Your task to perform on an android device: Go to Google maps Image 0: 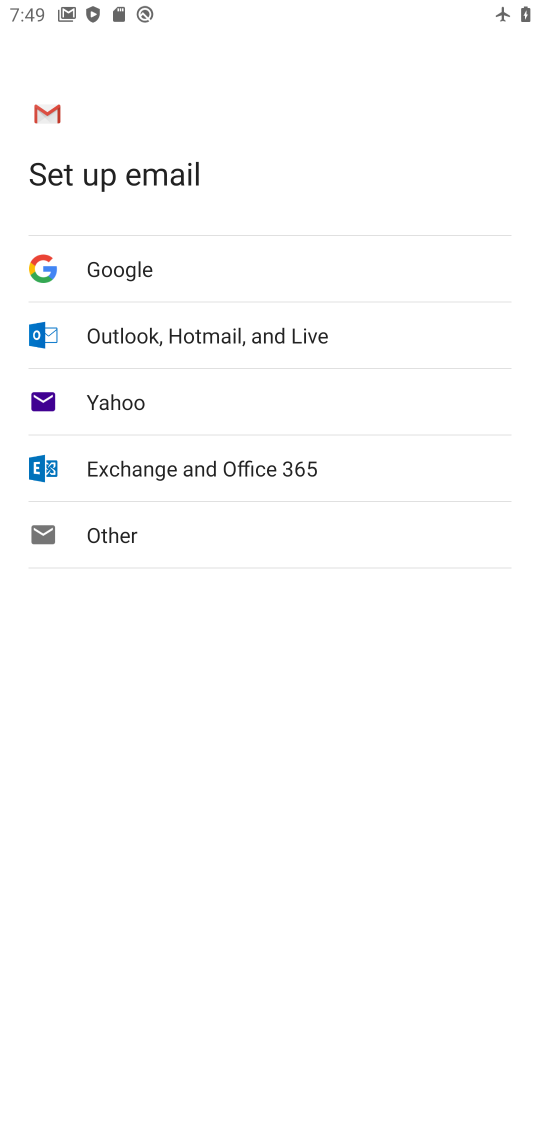
Step 0: press home button
Your task to perform on an android device: Go to Google maps Image 1: 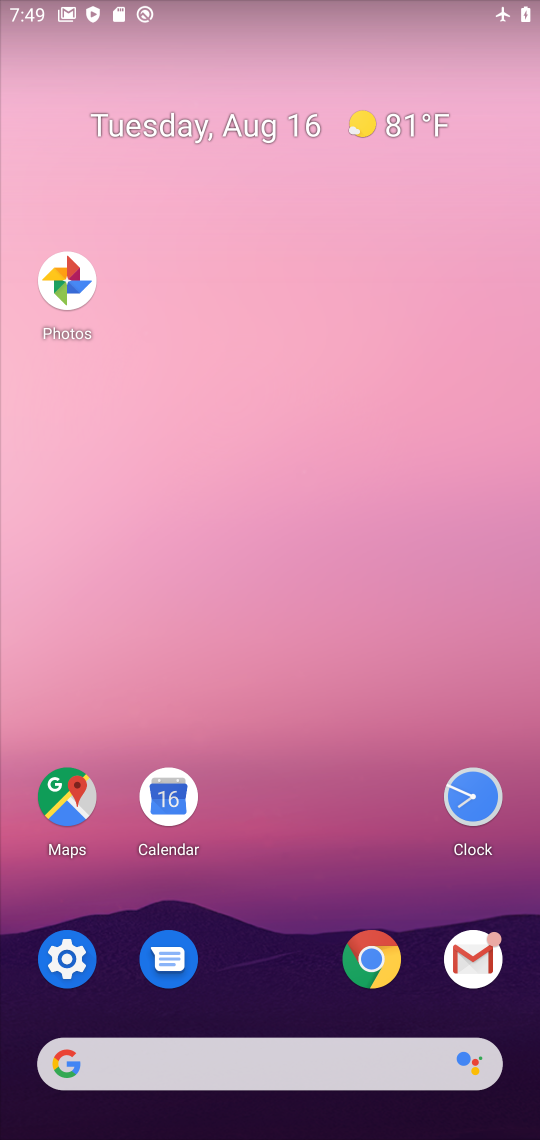
Step 1: click (71, 797)
Your task to perform on an android device: Go to Google maps Image 2: 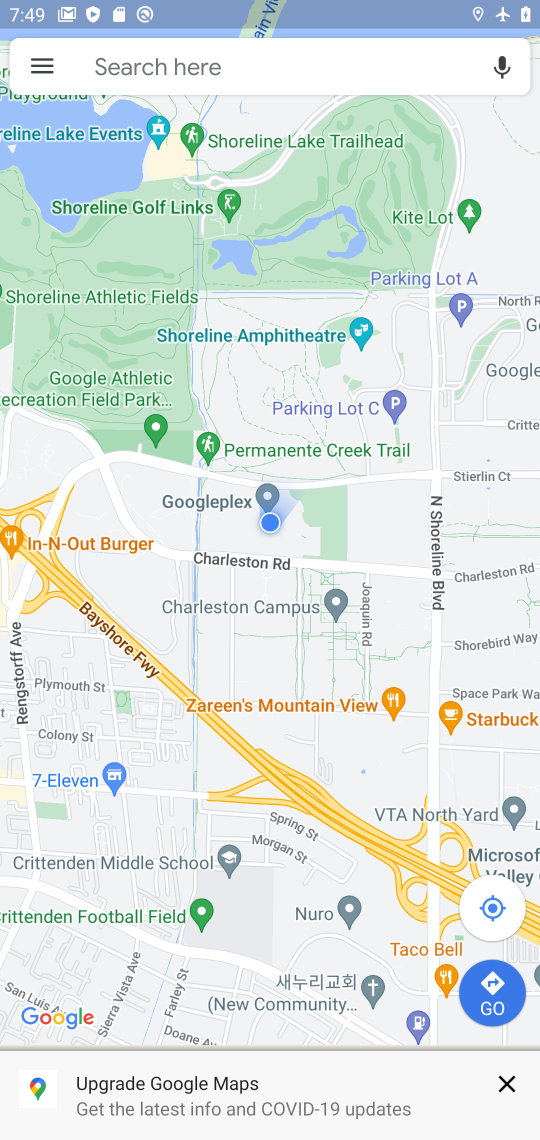
Step 2: task complete